Your task to perform on an android device: Go to Amazon Image 0: 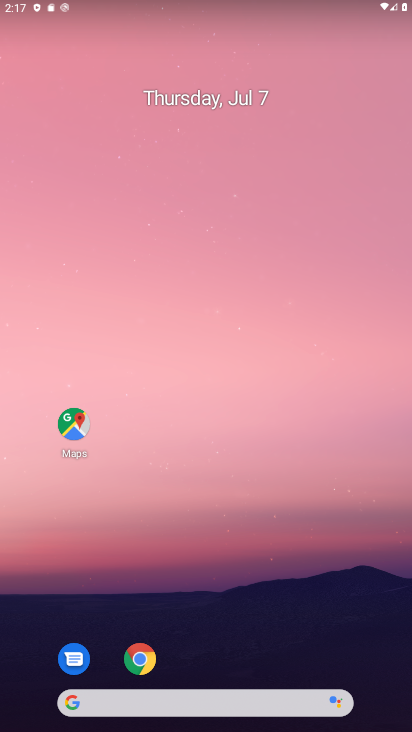
Step 0: click (134, 653)
Your task to perform on an android device: Go to Amazon Image 1: 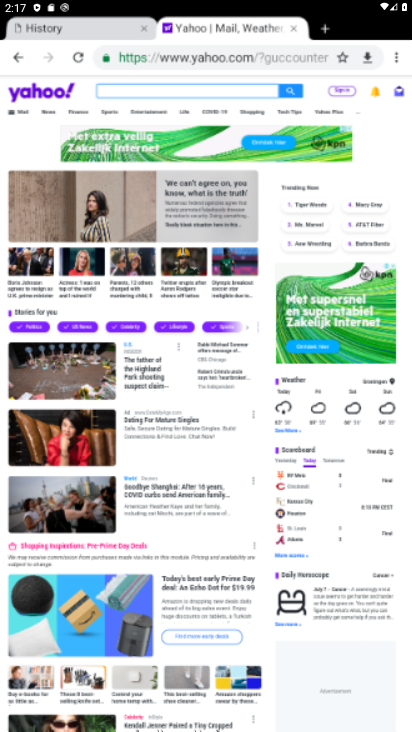
Step 1: click (322, 23)
Your task to perform on an android device: Go to Amazon Image 2: 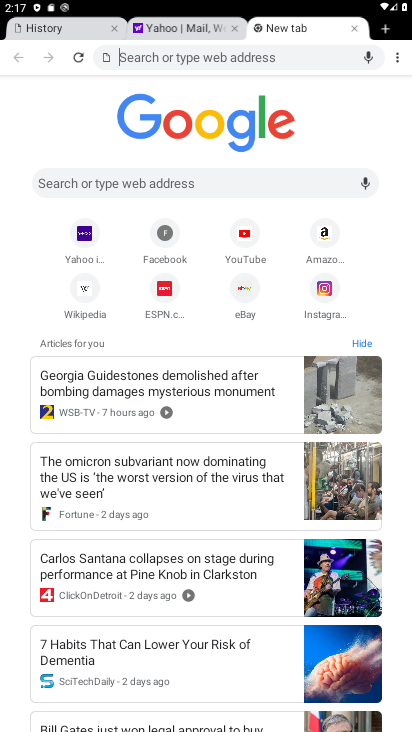
Step 2: click (332, 228)
Your task to perform on an android device: Go to Amazon Image 3: 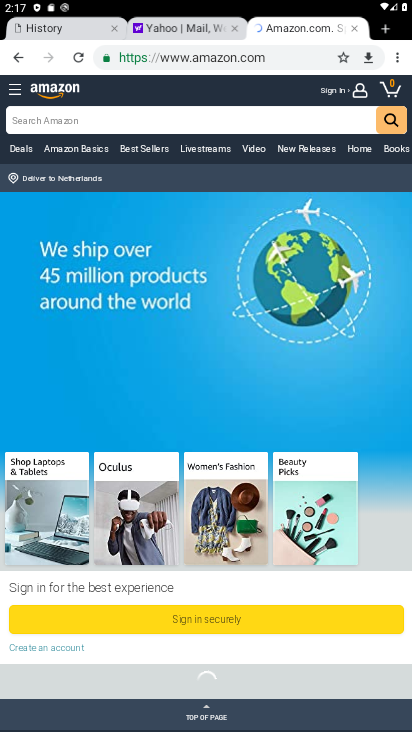
Step 3: click (115, 25)
Your task to perform on an android device: Go to Amazon Image 4: 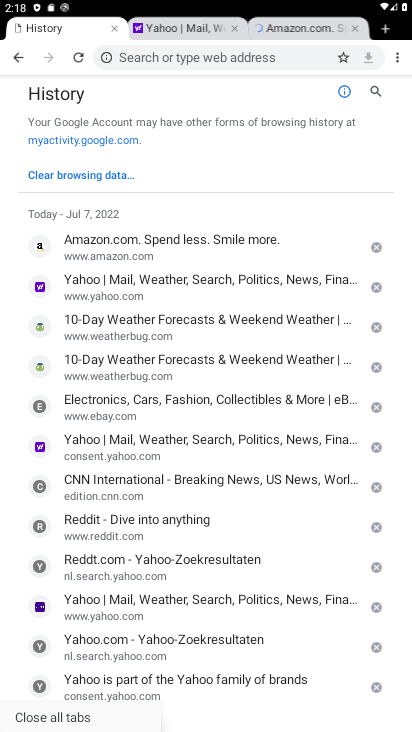
Step 4: drag from (243, 568) to (232, 206)
Your task to perform on an android device: Go to Amazon Image 5: 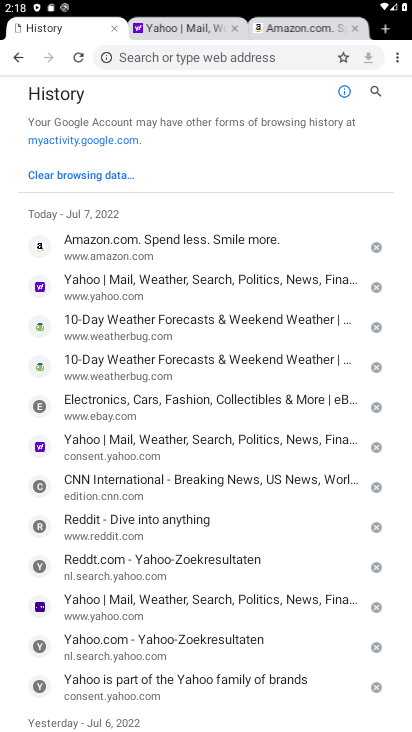
Step 5: click (114, 26)
Your task to perform on an android device: Go to Amazon Image 6: 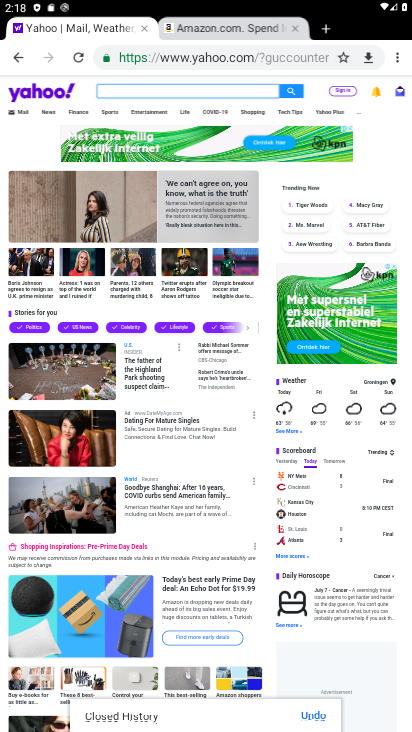
Step 6: click (175, 18)
Your task to perform on an android device: Go to Amazon Image 7: 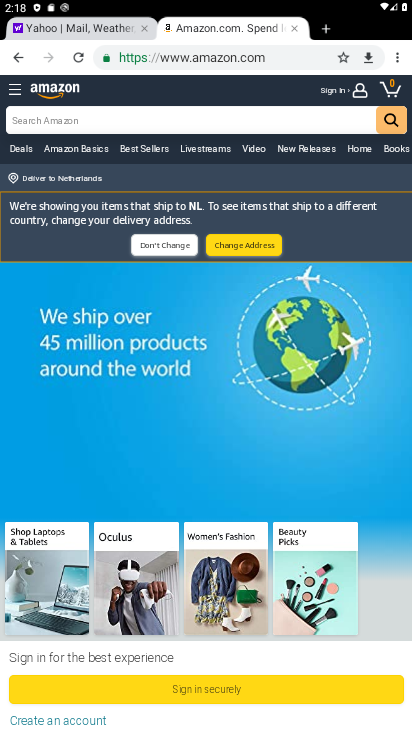
Step 7: task complete